Your task to perform on an android device: delete a single message in the gmail app Image 0: 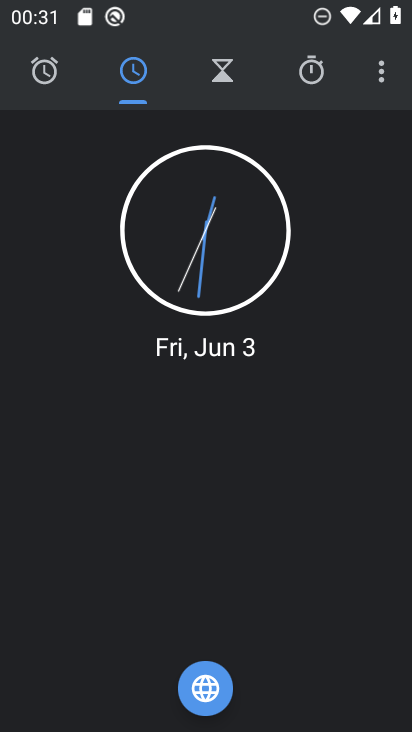
Step 0: press home button
Your task to perform on an android device: delete a single message in the gmail app Image 1: 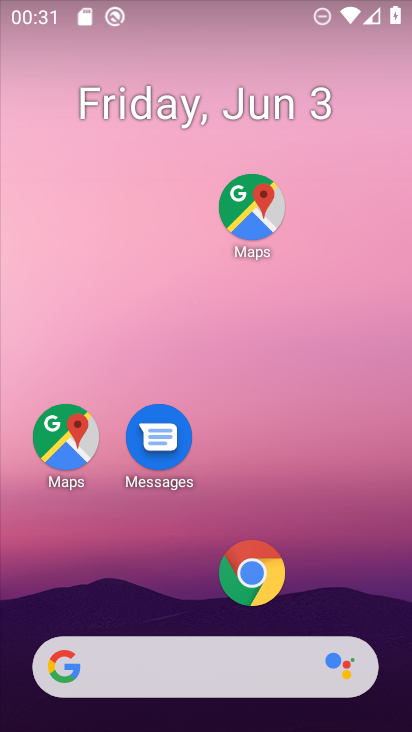
Step 1: drag from (309, 582) to (335, 61)
Your task to perform on an android device: delete a single message in the gmail app Image 2: 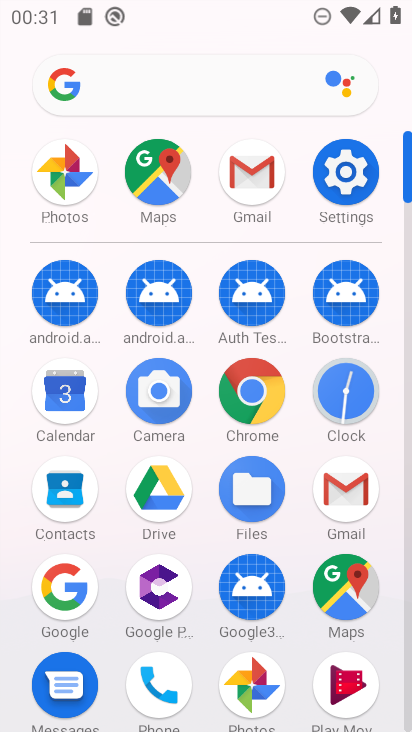
Step 2: click (327, 487)
Your task to perform on an android device: delete a single message in the gmail app Image 3: 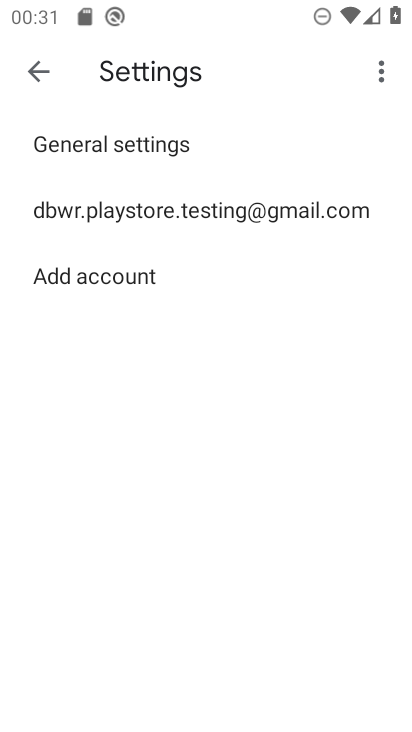
Step 3: click (44, 69)
Your task to perform on an android device: delete a single message in the gmail app Image 4: 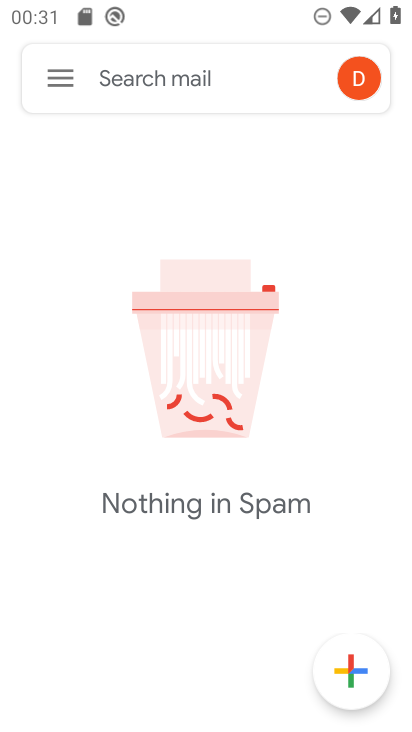
Step 4: click (44, 69)
Your task to perform on an android device: delete a single message in the gmail app Image 5: 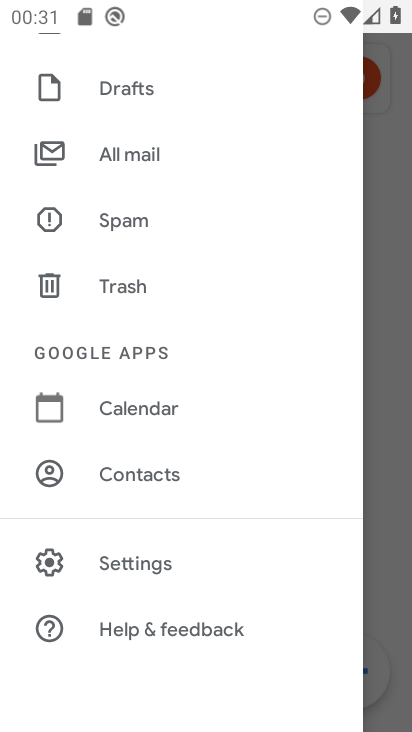
Step 5: click (134, 166)
Your task to perform on an android device: delete a single message in the gmail app Image 6: 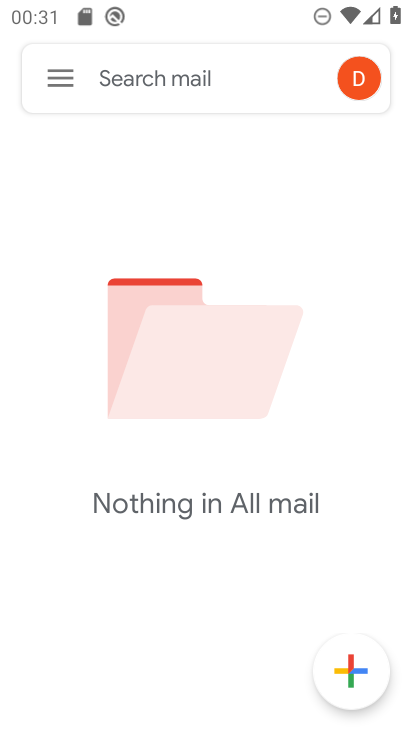
Step 6: task complete